Your task to perform on an android device: change the clock style Image 0: 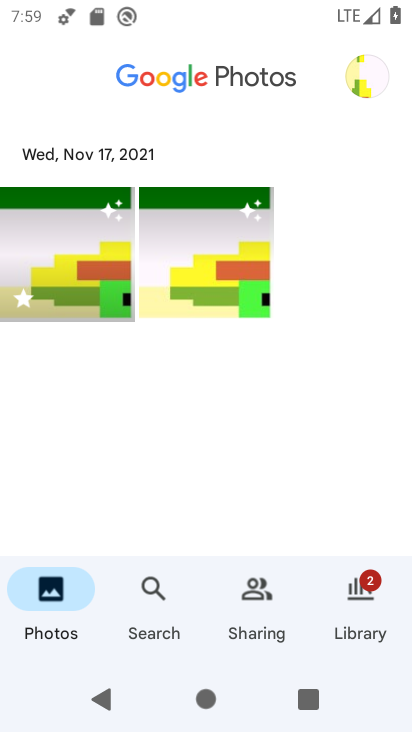
Step 0: press home button
Your task to perform on an android device: change the clock style Image 1: 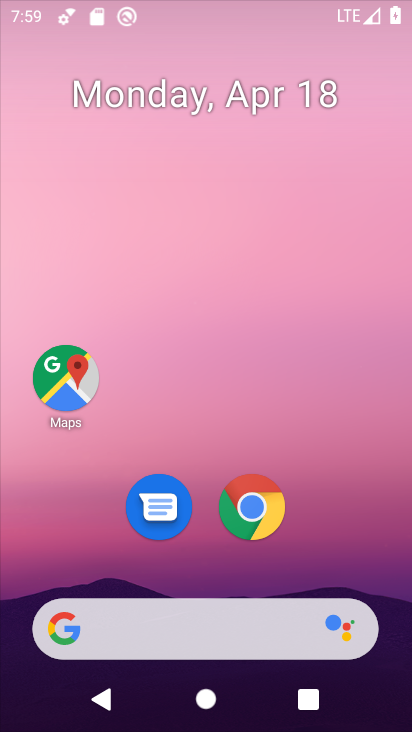
Step 1: drag from (7, 514) to (207, 12)
Your task to perform on an android device: change the clock style Image 2: 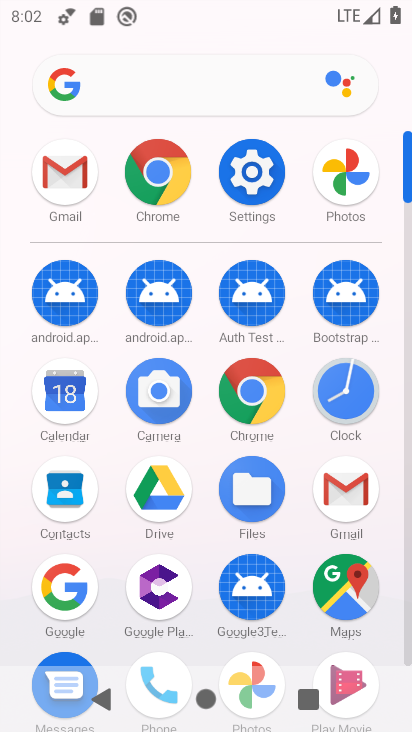
Step 2: click (355, 399)
Your task to perform on an android device: change the clock style Image 3: 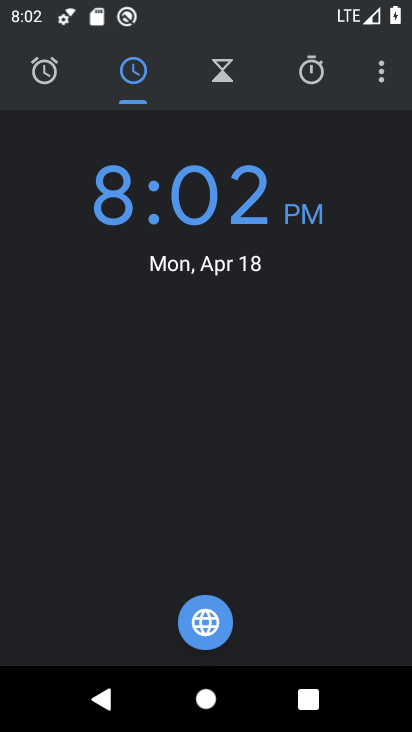
Step 3: click (375, 69)
Your task to perform on an android device: change the clock style Image 4: 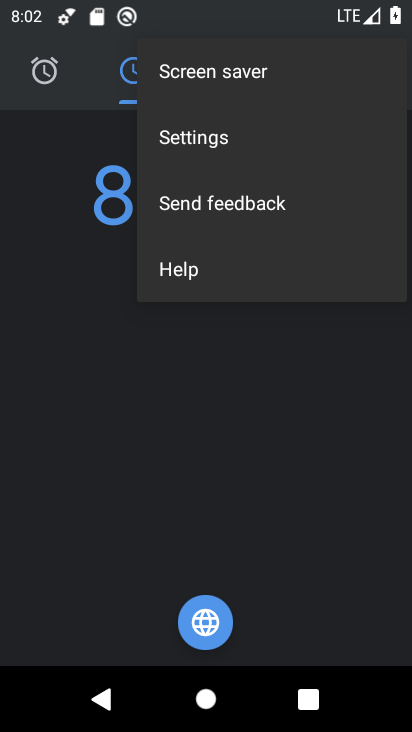
Step 4: click (248, 145)
Your task to perform on an android device: change the clock style Image 5: 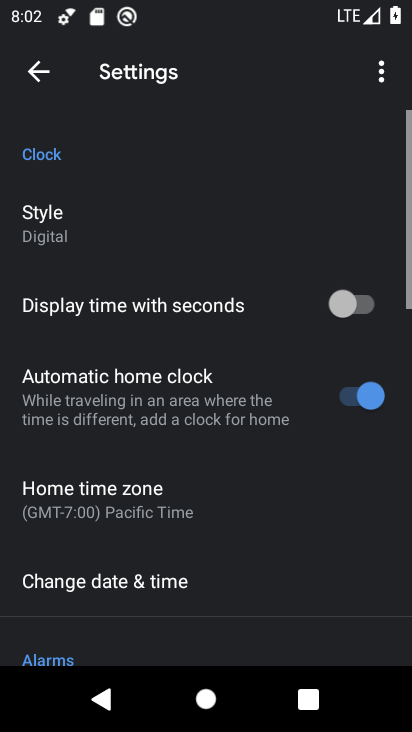
Step 5: click (144, 224)
Your task to perform on an android device: change the clock style Image 6: 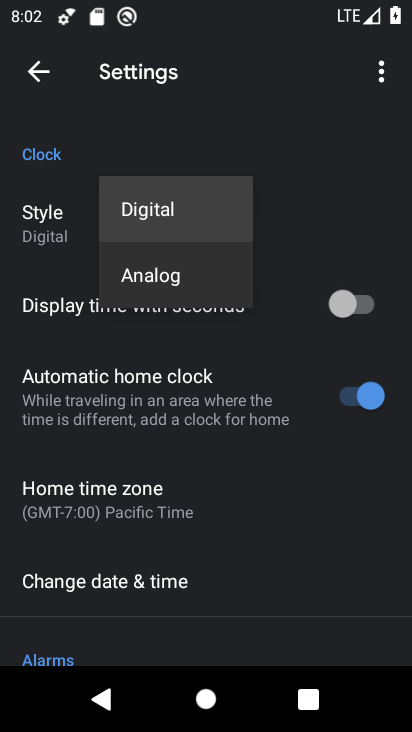
Step 6: click (156, 267)
Your task to perform on an android device: change the clock style Image 7: 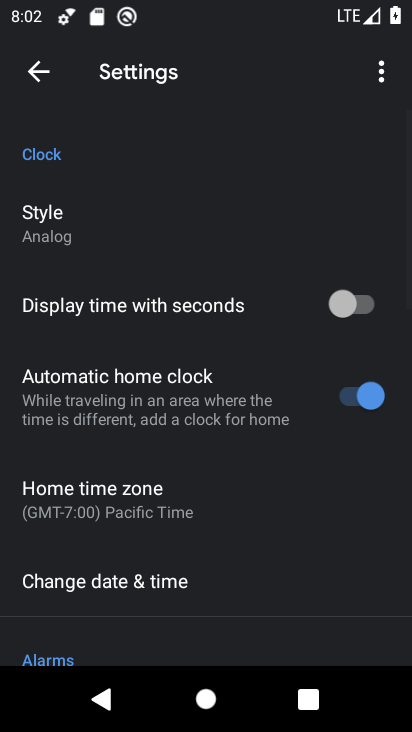
Step 7: task complete